Your task to perform on an android device: Check the news Image 0: 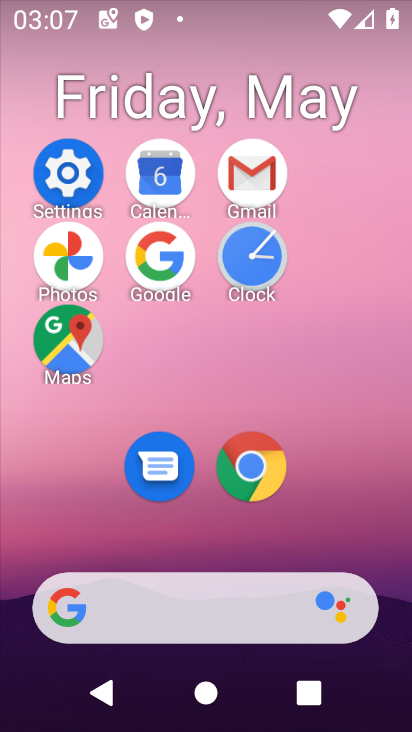
Step 0: click (173, 273)
Your task to perform on an android device: Check the news Image 1: 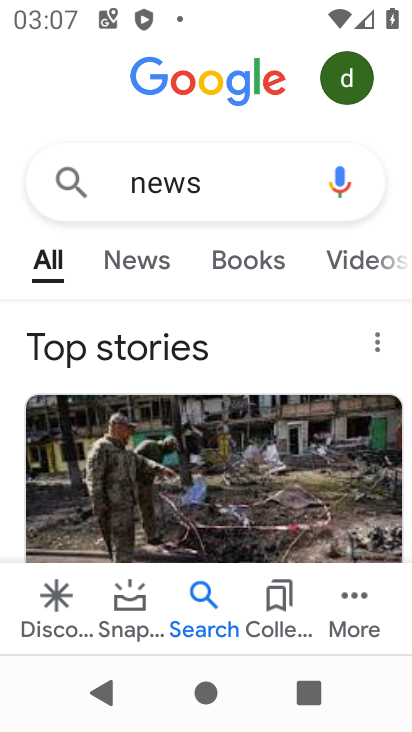
Step 1: task complete